Your task to perform on an android device: Search for acer predator on amazon, select the first entry, and add it to the cart. Image 0: 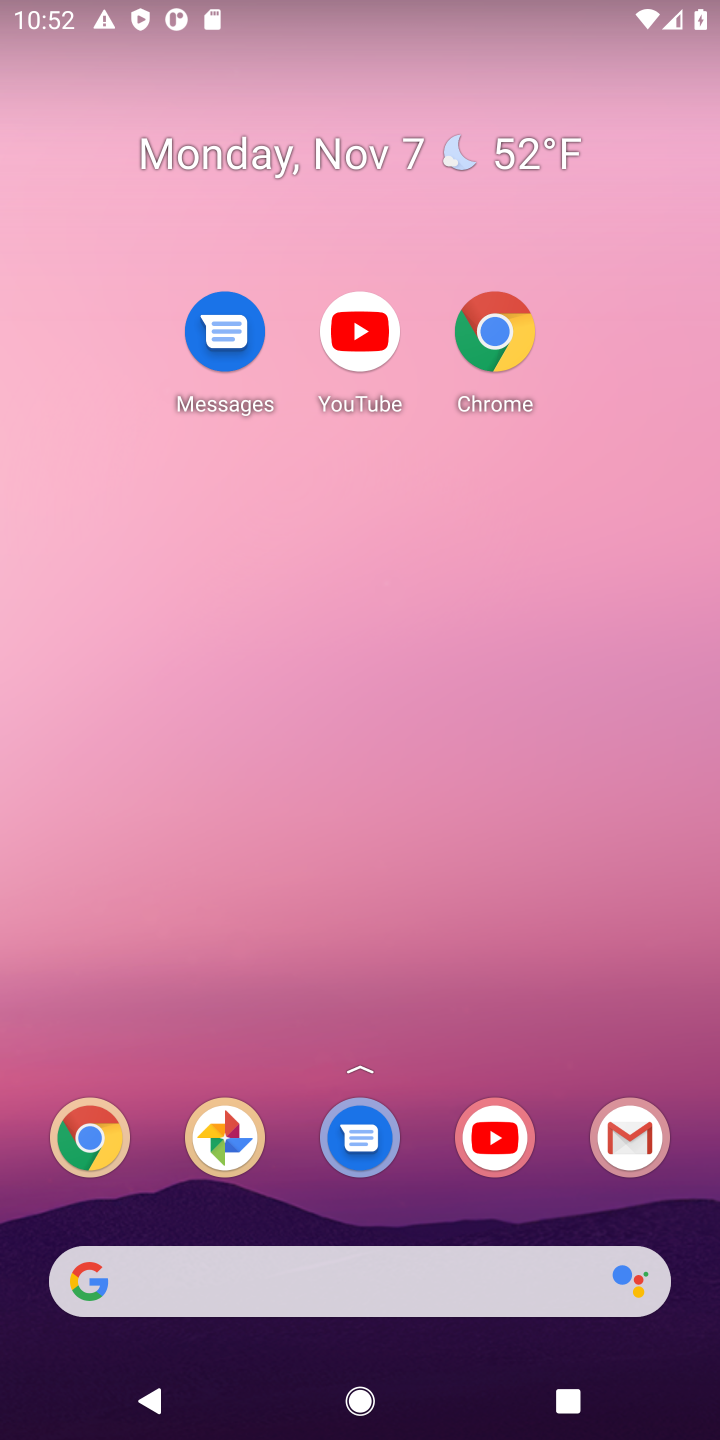
Step 0: drag from (396, 1223) to (516, 80)
Your task to perform on an android device: Search for acer predator on amazon, select the first entry, and add it to the cart. Image 1: 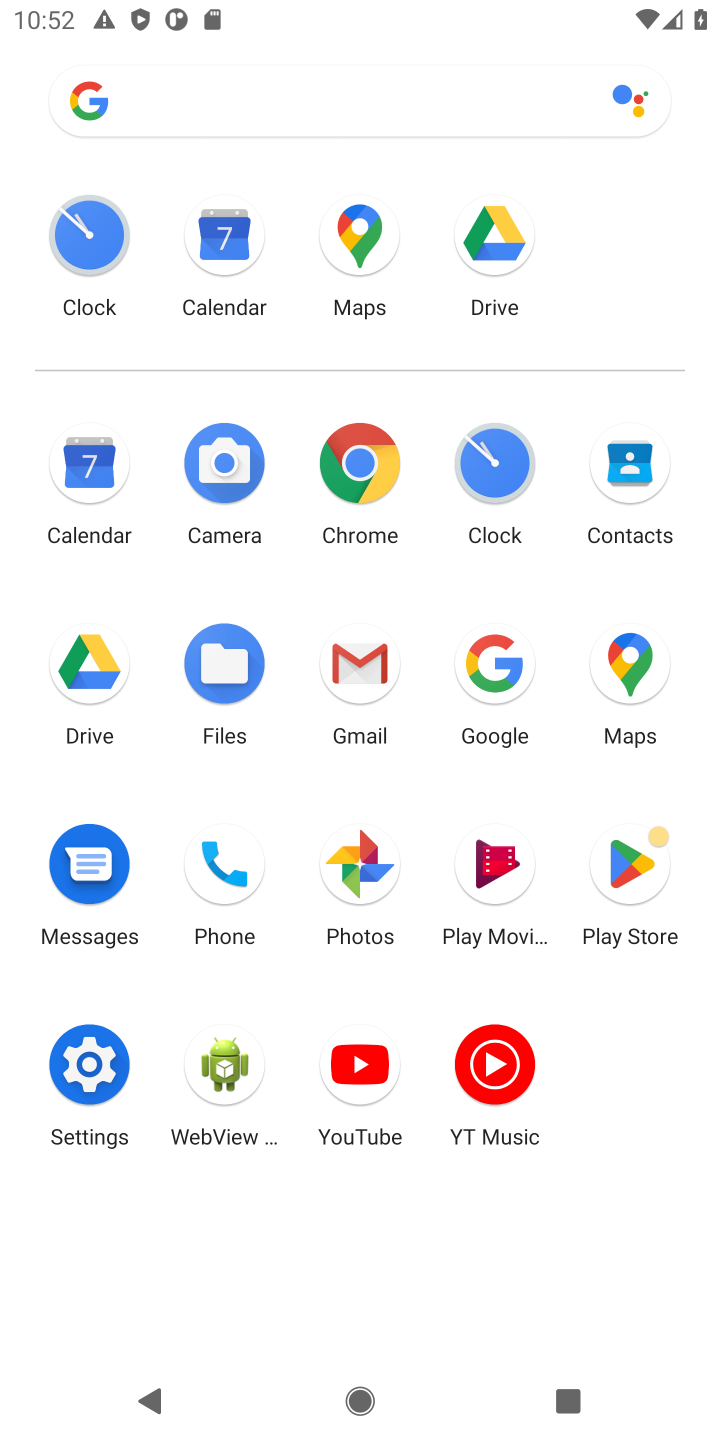
Step 1: click (368, 459)
Your task to perform on an android device: Search for acer predator on amazon, select the first entry, and add it to the cart. Image 2: 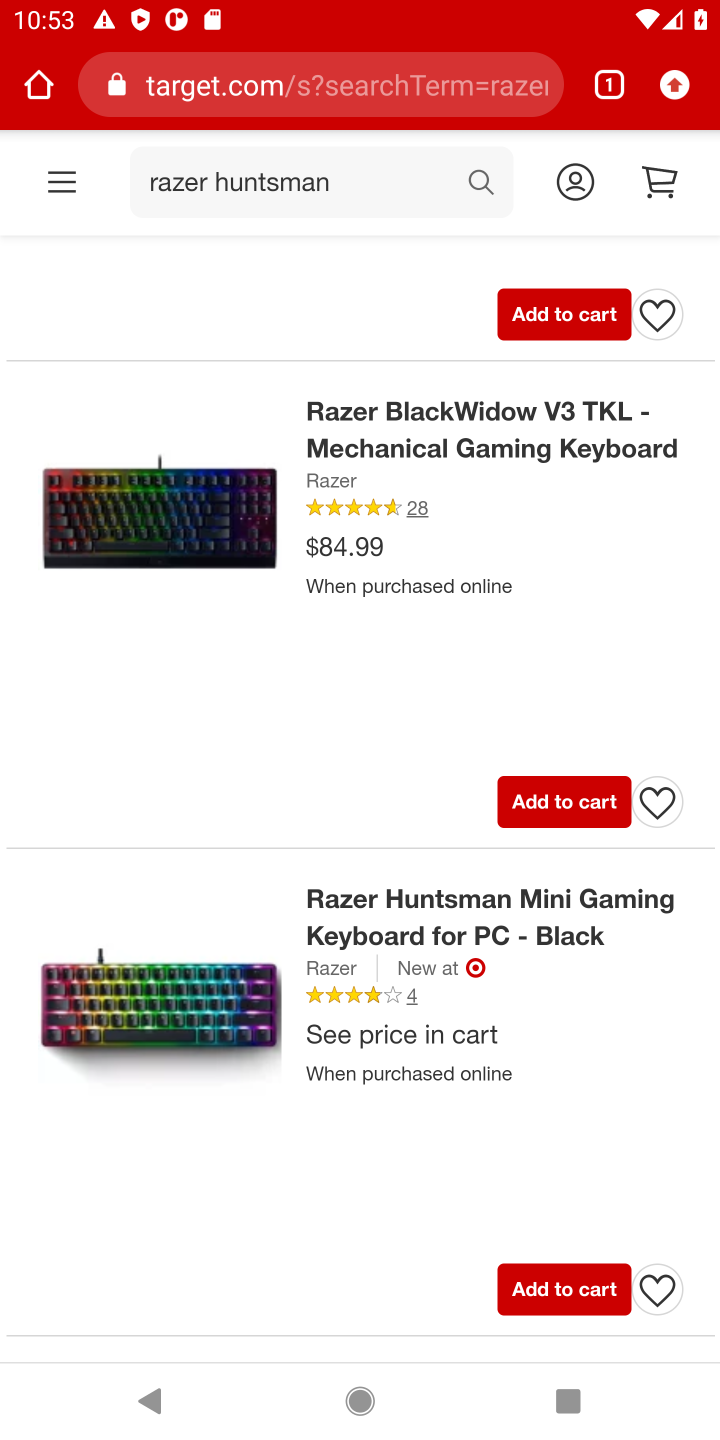
Step 2: click (469, 82)
Your task to perform on an android device: Search for acer predator on amazon, select the first entry, and add it to the cart. Image 3: 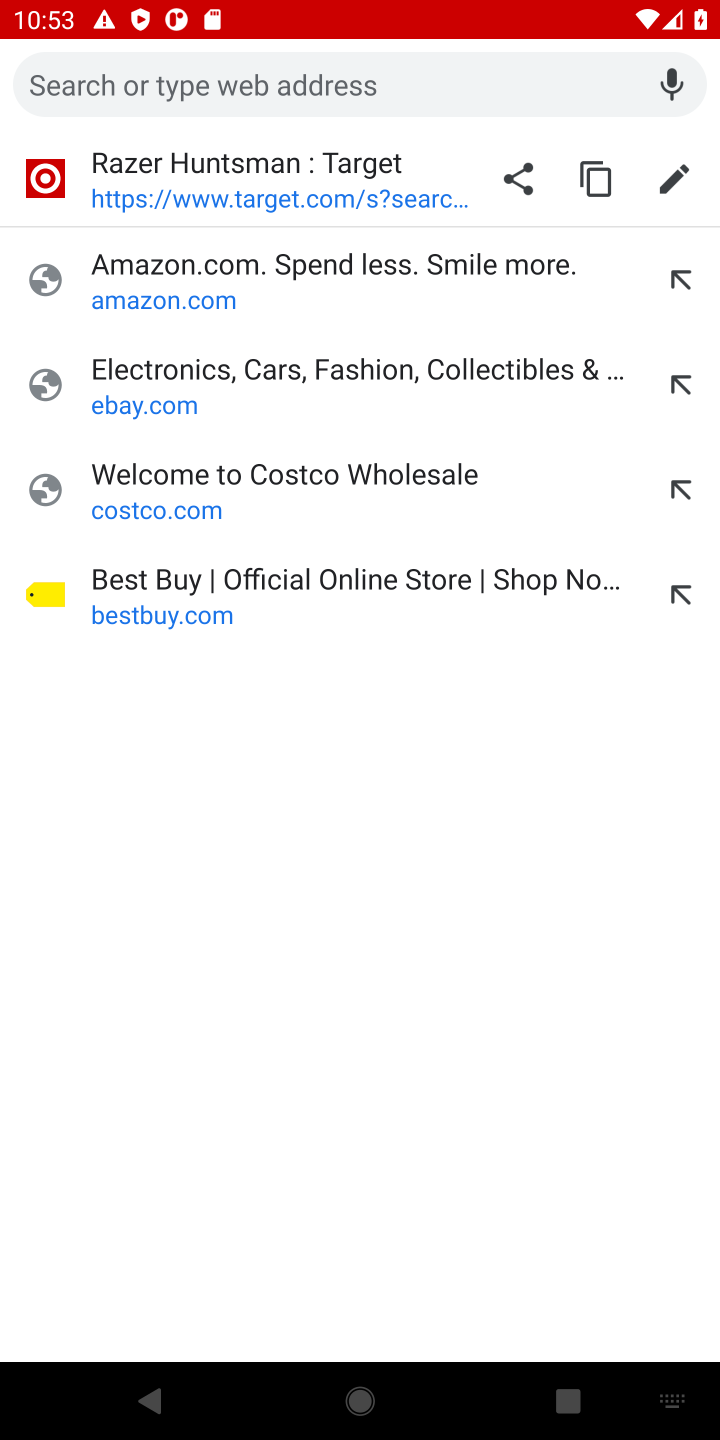
Step 3: type "amazon.com"
Your task to perform on an android device: Search for acer predator on amazon, select the first entry, and add it to the cart. Image 4: 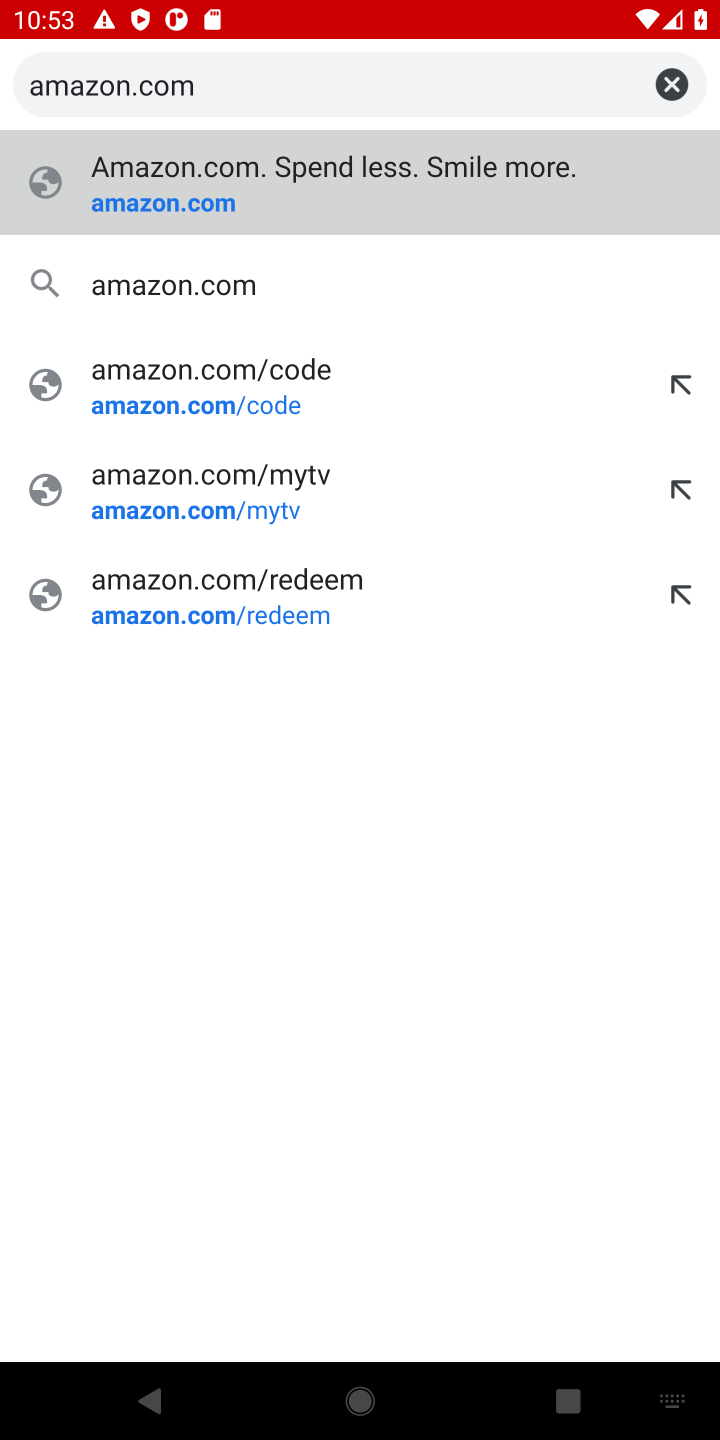
Step 4: press enter
Your task to perform on an android device: Search for acer predator on amazon, select the first entry, and add it to the cart. Image 5: 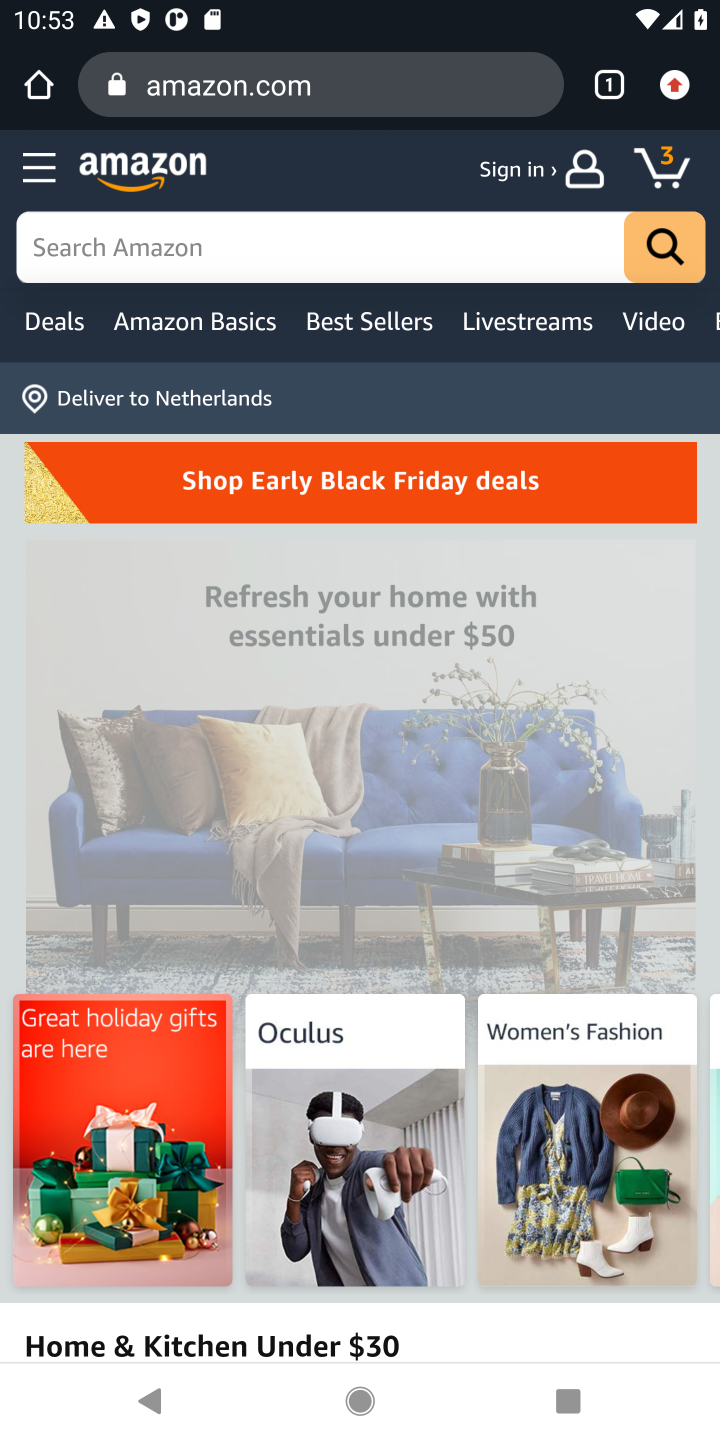
Step 5: click (470, 247)
Your task to perform on an android device: Search for acer predator on amazon, select the first entry, and add it to the cart. Image 6: 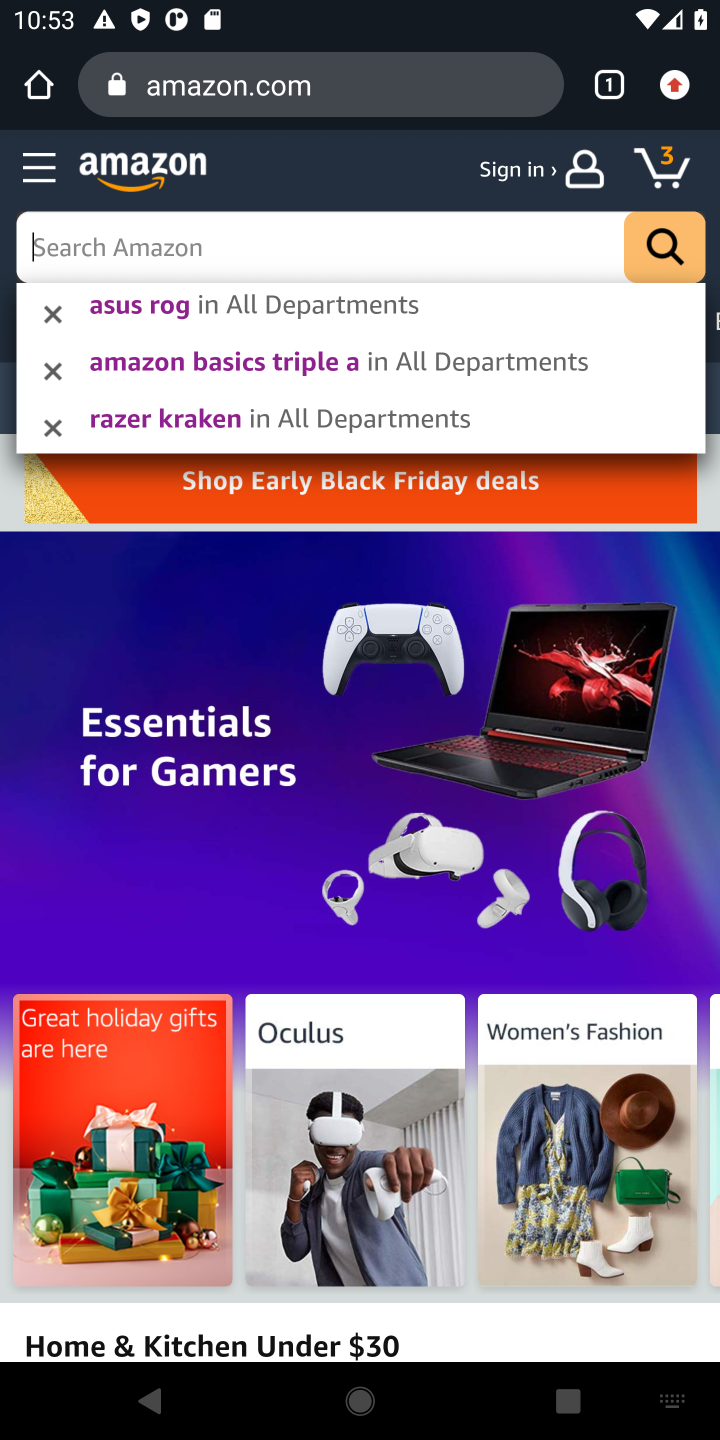
Step 6: type "acer predator"
Your task to perform on an android device: Search for acer predator on amazon, select the first entry, and add it to the cart. Image 7: 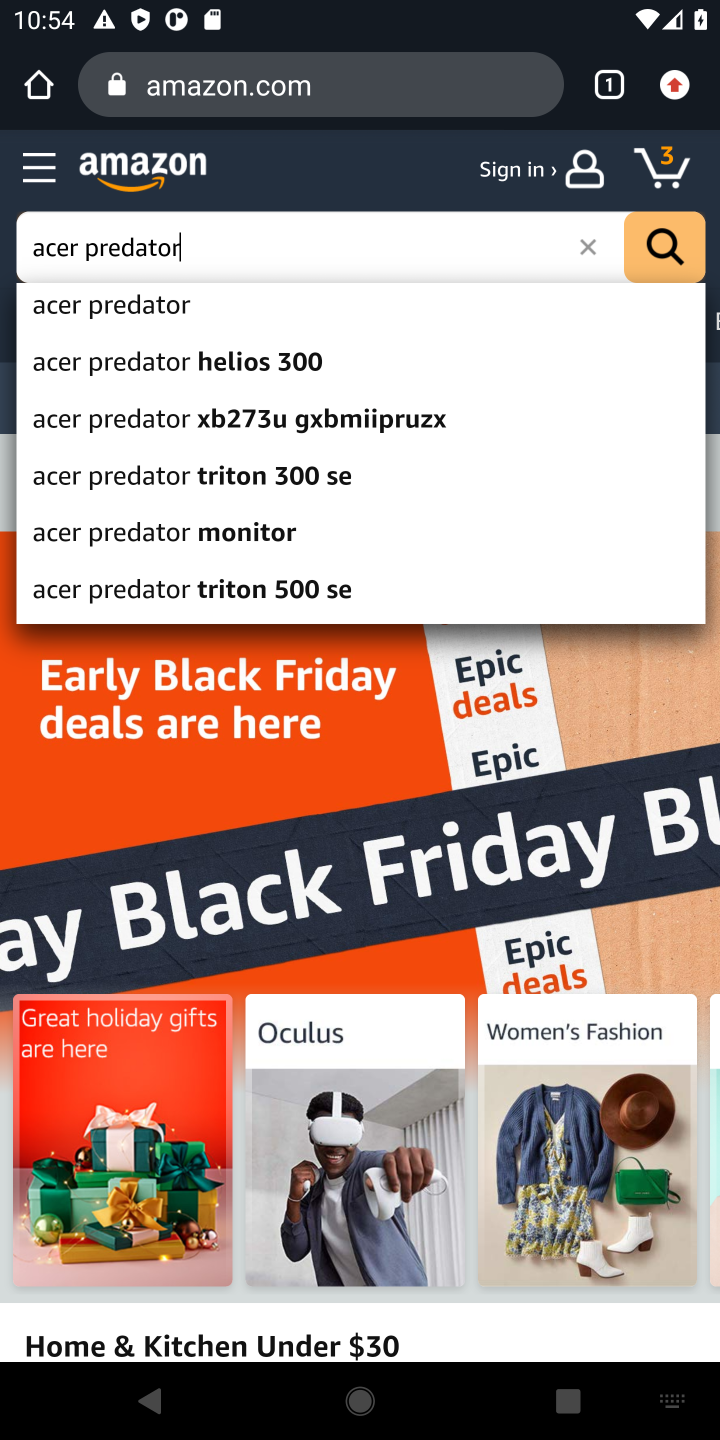
Step 7: click (686, 246)
Your task to perform on an android device: Search for acer predator on amazon, select the first entry, and add it to the cart. Image 8: 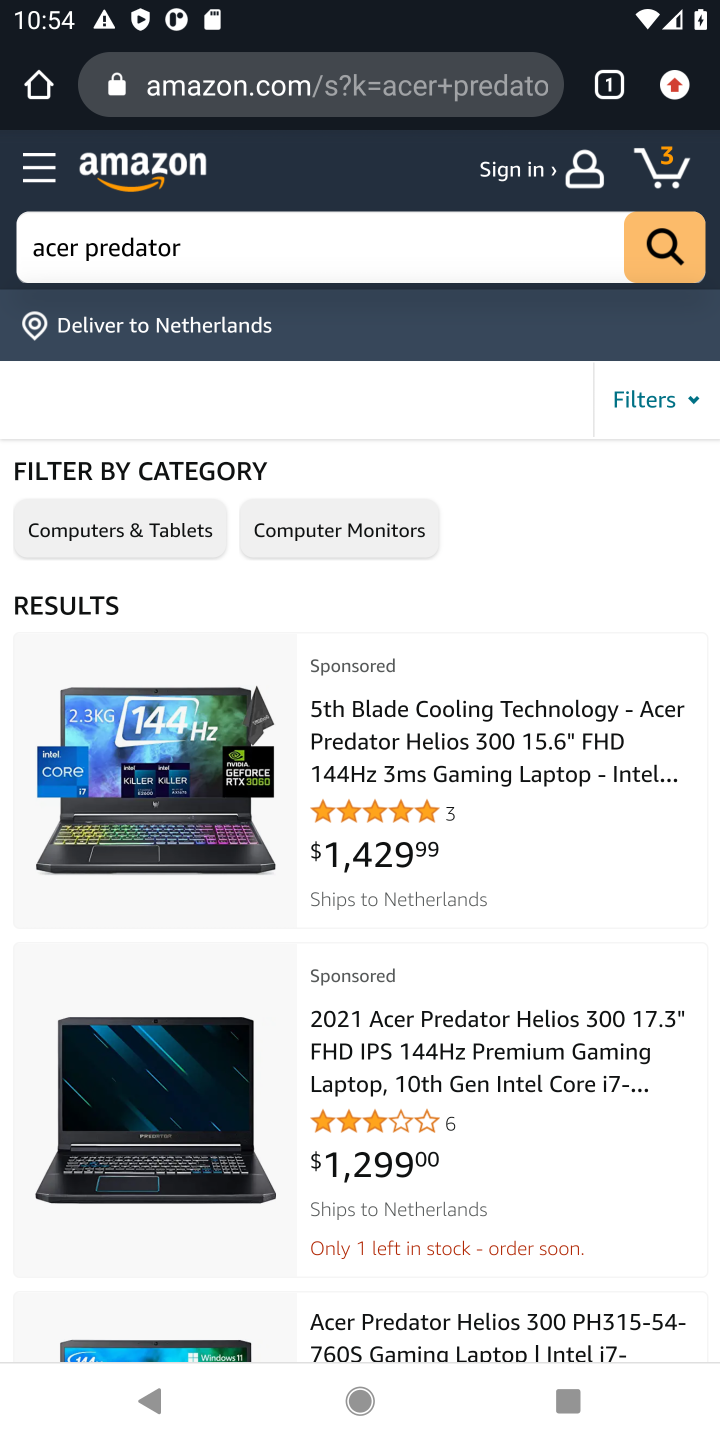
Step 8: drag from (546, 1193) to (593, 707)
Your task to perform on an android device: Search for acer predator on amazon, select the first entry, and add it to the cart. Image 9: 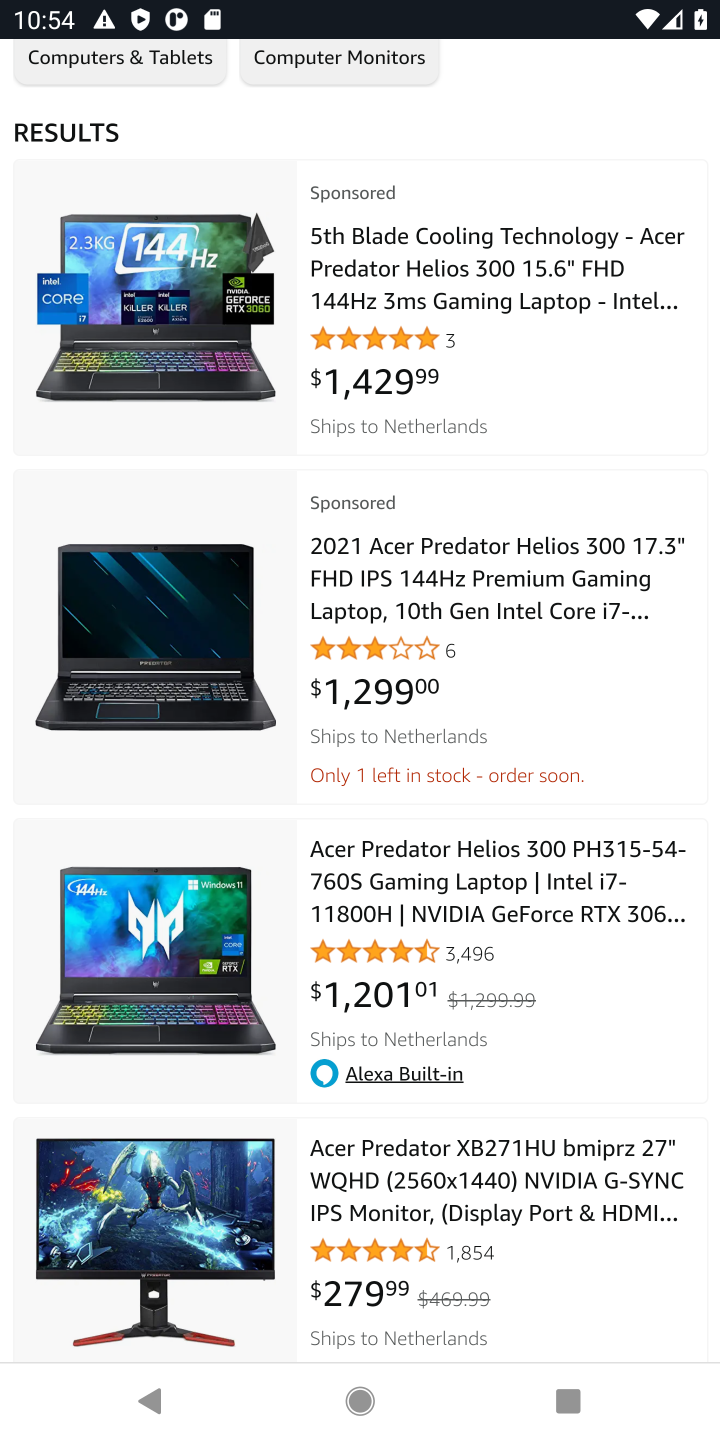
Step 9: click (438, 884)
Your task to perform on an android device: Search for acer predator on amazon, select the first entry, and add it to the cart. Image 10: 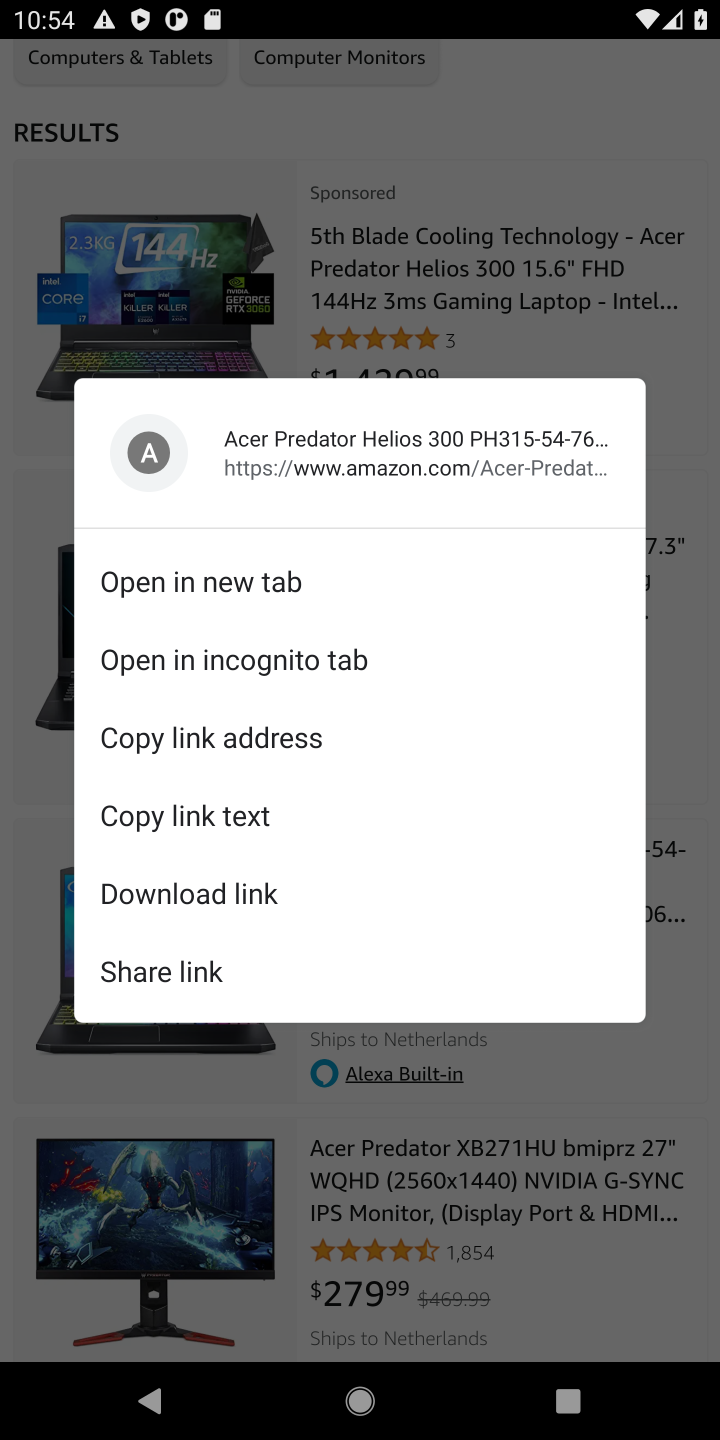
Step 10: click (516, 1084)
Your task to perform on an android device: Search for acer predator on amazon, select the first entry, and add it to the cart. Image 11: 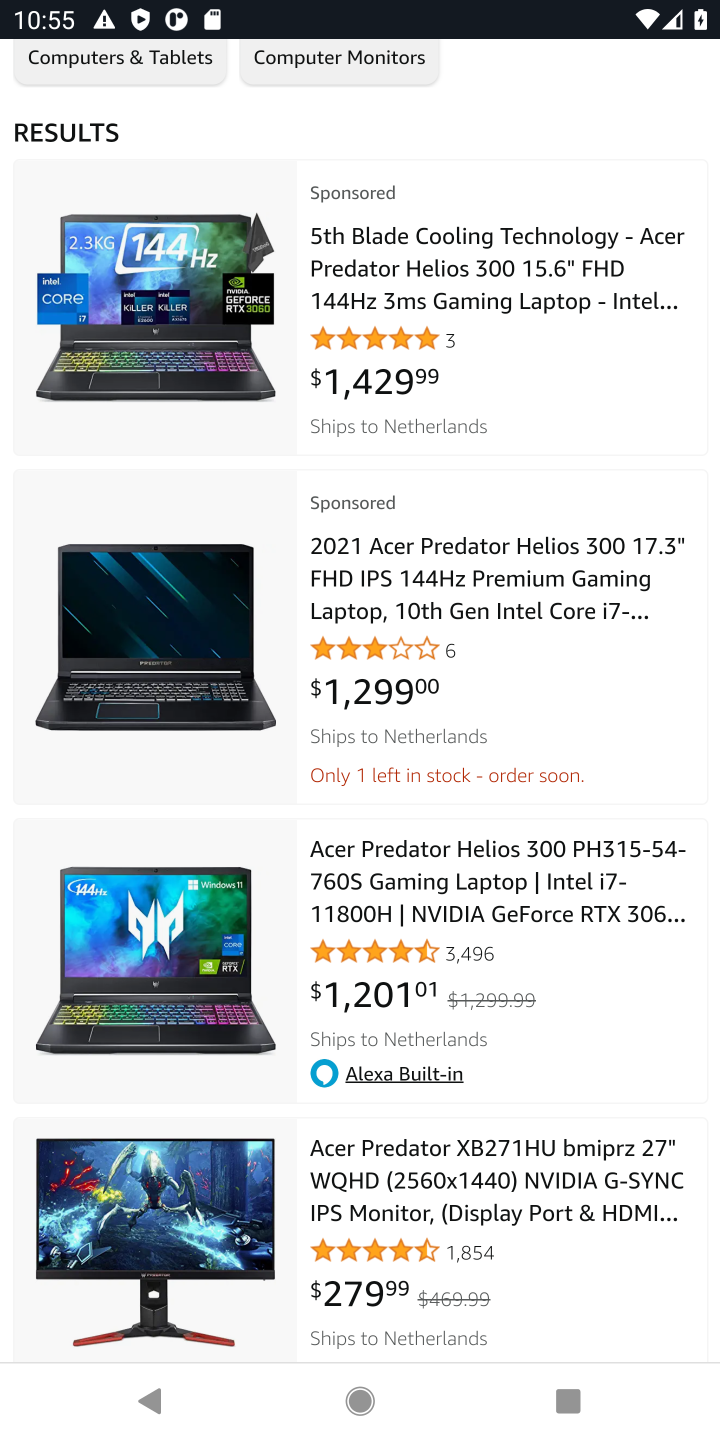
Step 11: click (395, 914)
Your task to perform on an android device: Search for acer predator on amazon, select the first entry, and add it to the cart. Image 12: 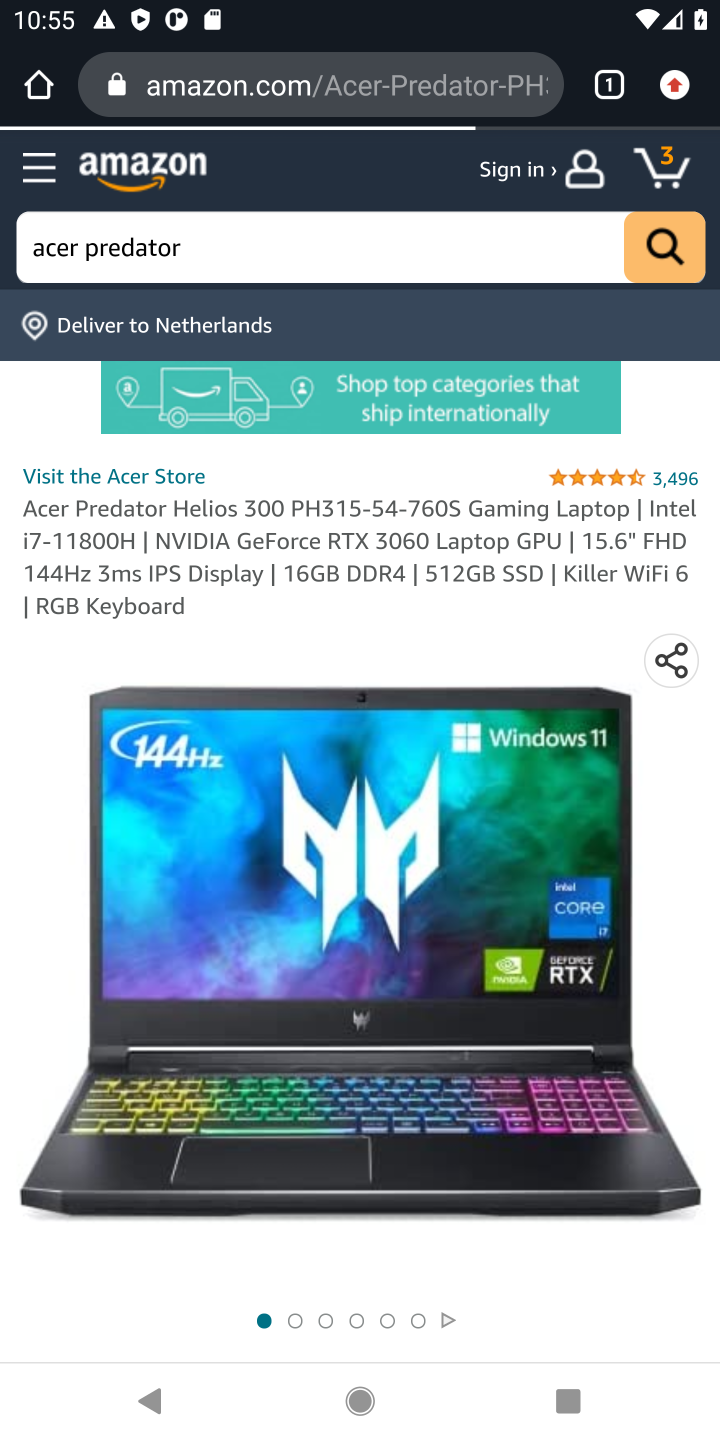
Step 12: drag from (440, 779) to (498, 191)
Your task to perform on an android device: Search for acer predator on amazon, select the first entry, and add it to the cart. Image 13: 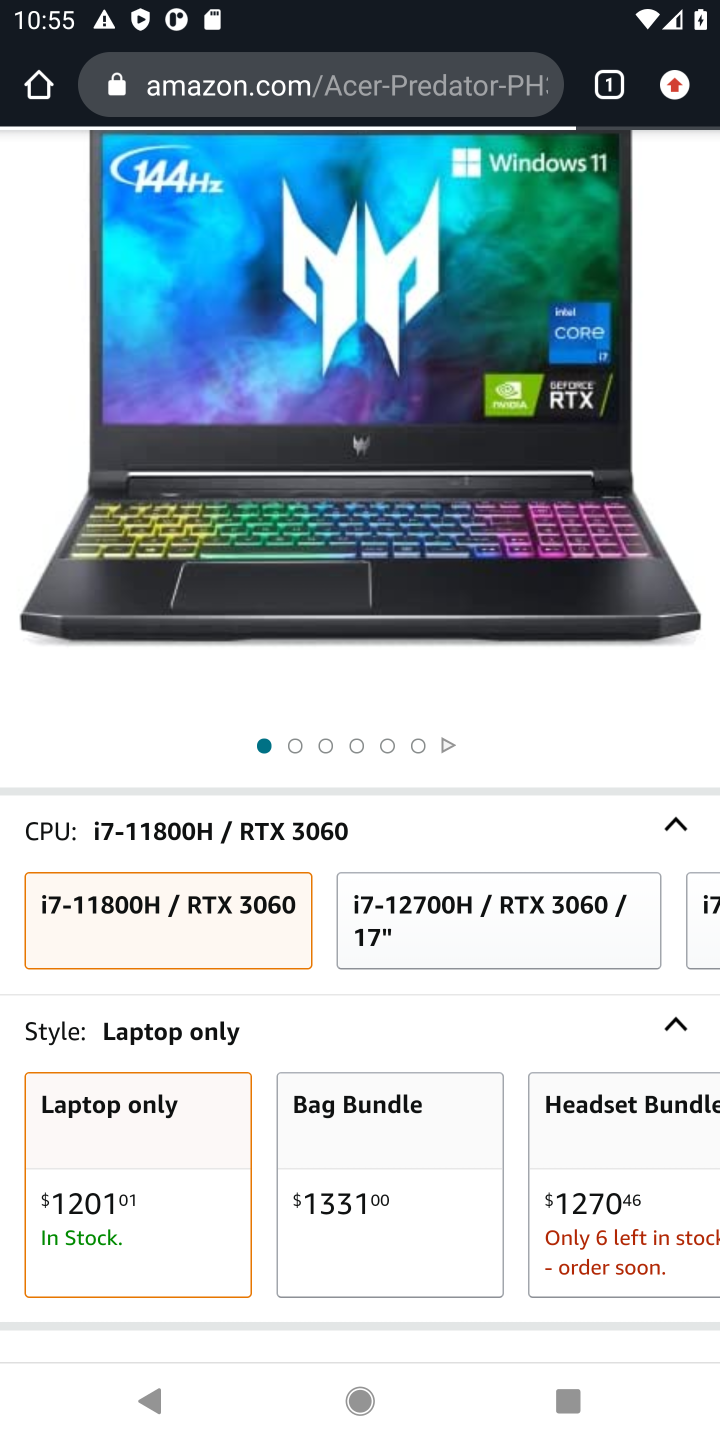
Step 13: drag from (482, 791) to (534, 149)
Your task to perform on an android device: Search for acer predator on amazon, select the first entry, and add it to the cart. Image 14: 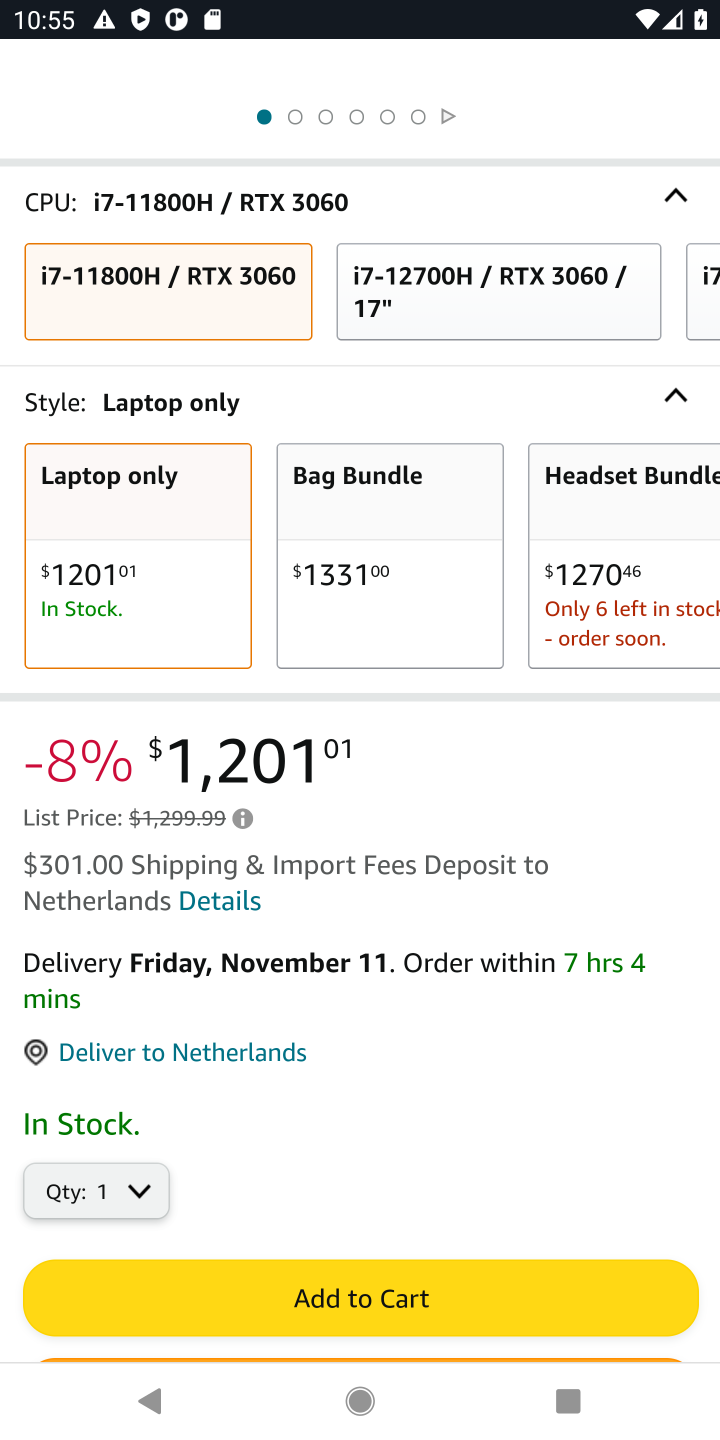
Step 14: drag from (371, 1220) to (456, 667)
Your task to perform on an android device: Search for acer predator on amazon, select the first entry, and add it to the cart. Image 15: 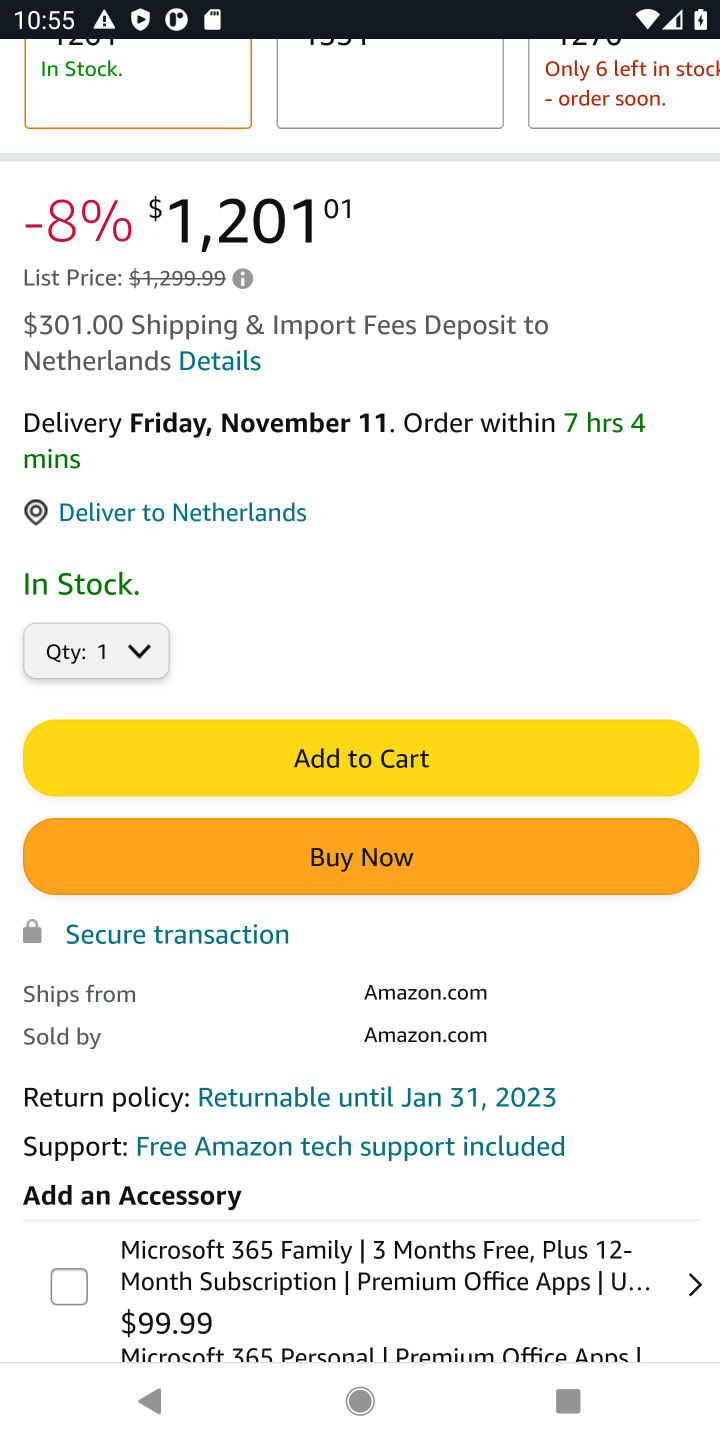
Step 15: click (392, 754)
Your task to perform on an android device: Search for acer predator on amazon, select the first entry, and add it to the cart. Image 16: 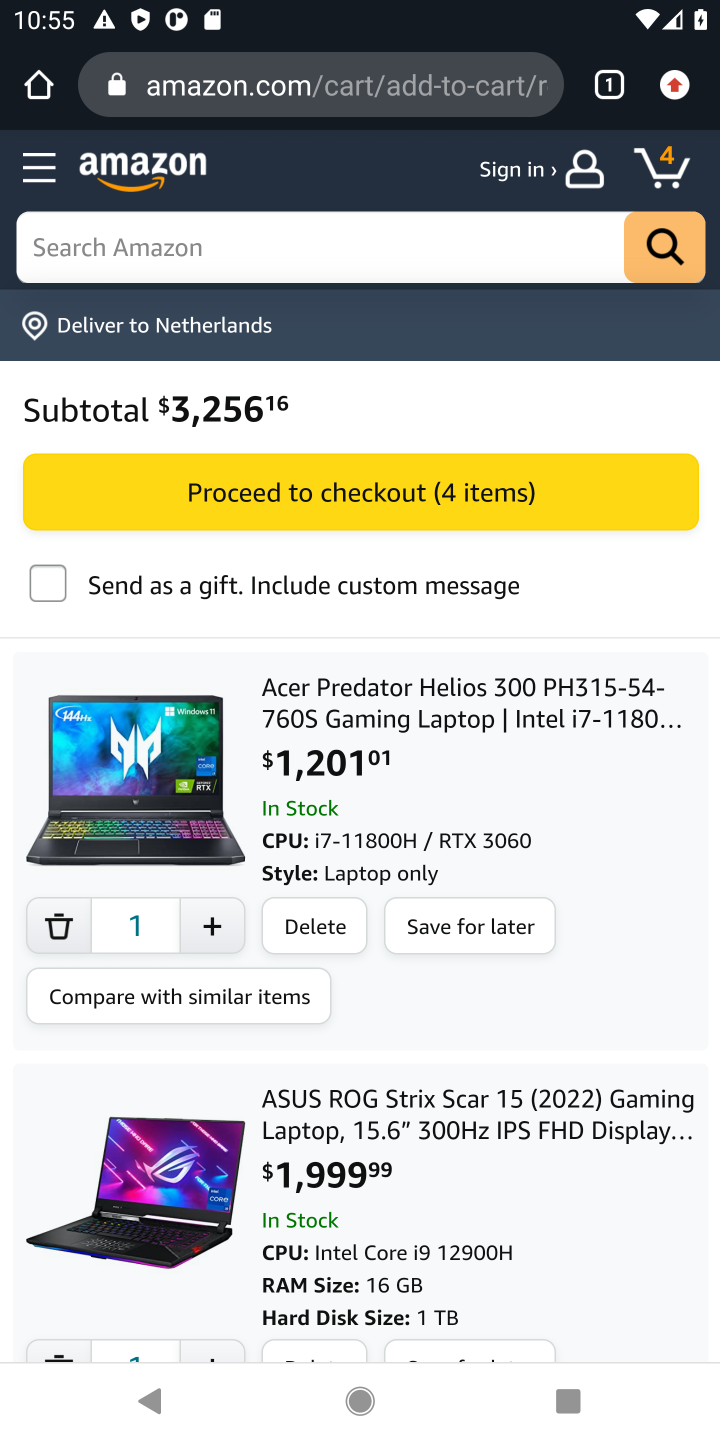
Step 16: task complete